Your task to perform on an android device: Add logitech g910 to the cart on walmart.com Image 0: 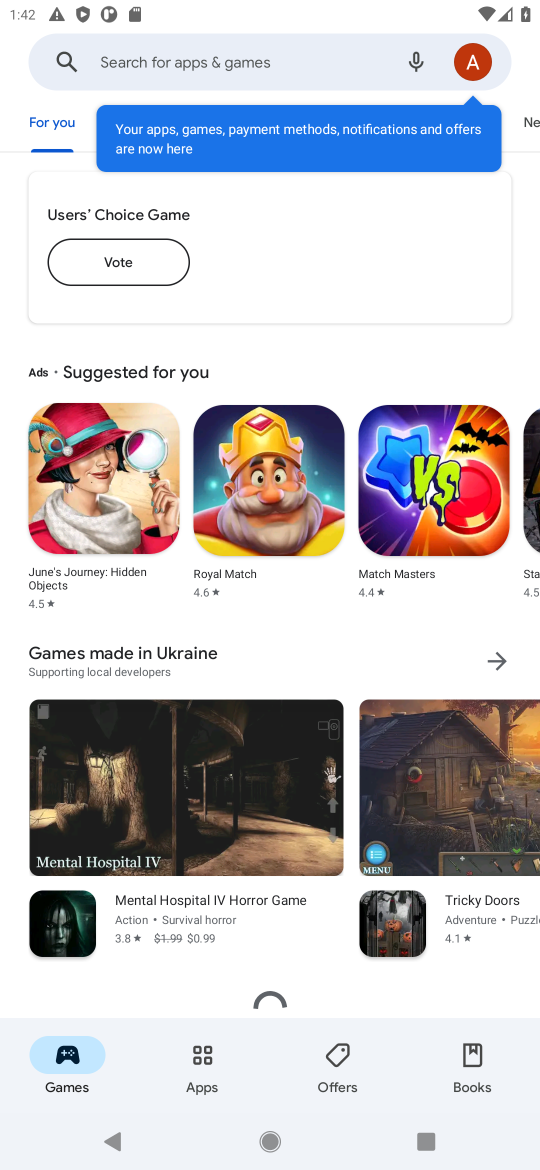
Step 0: press home button
Your task to perform on an android device: Add logitech g910 to the cart on walmart.com Image 1: 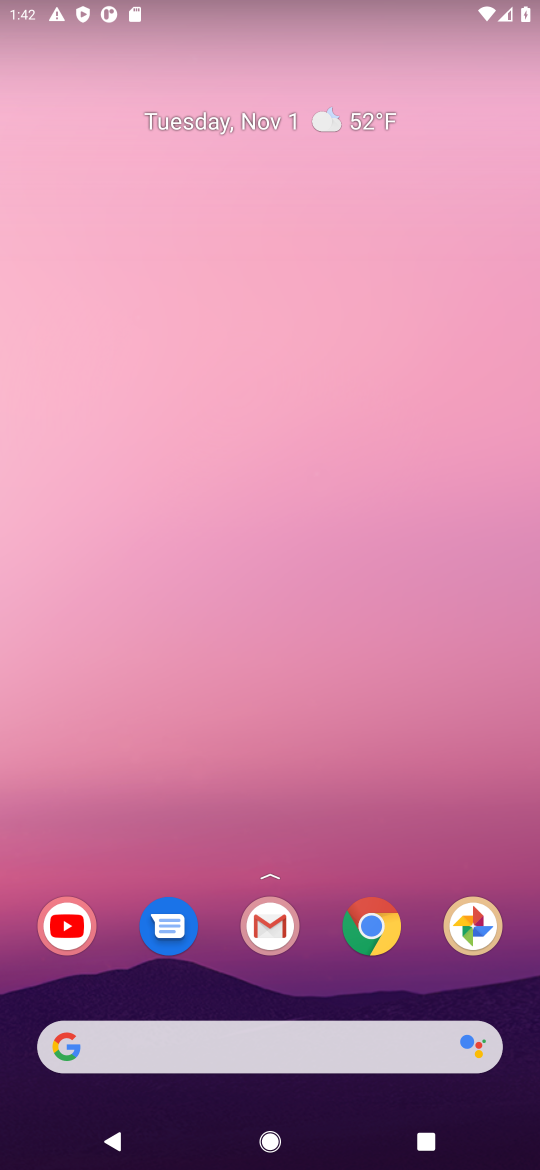
Step 1: click (378, 923)
Your task to perform on an android device: Add logitech g910 to the cart on walmart.com Image 2: 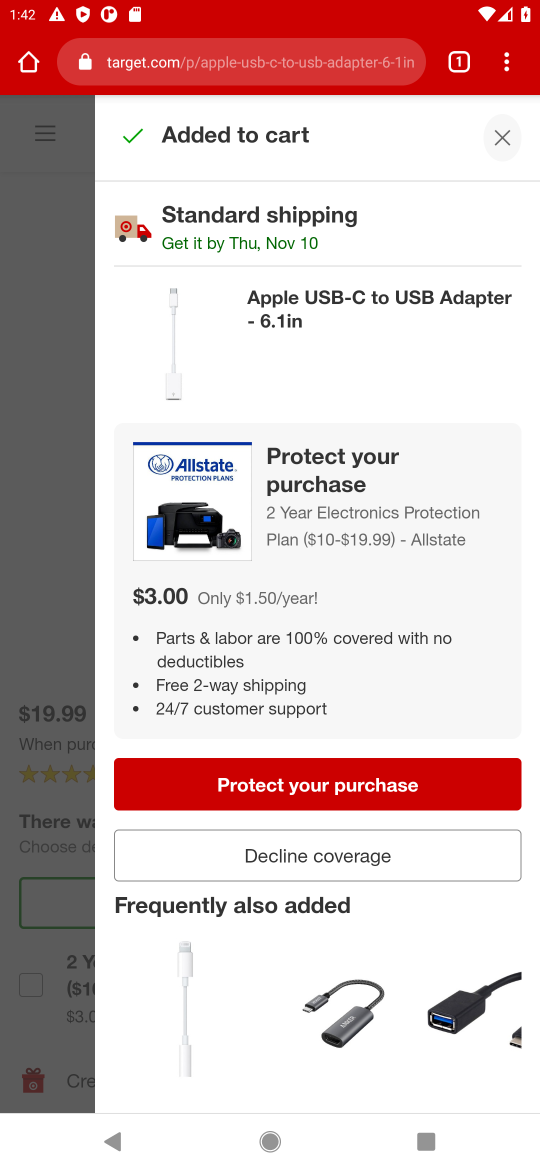
Step 2: click (261, 69)
Your task to perform on an android device: Add logitech g910 to the cart on walmart.com Image 3: 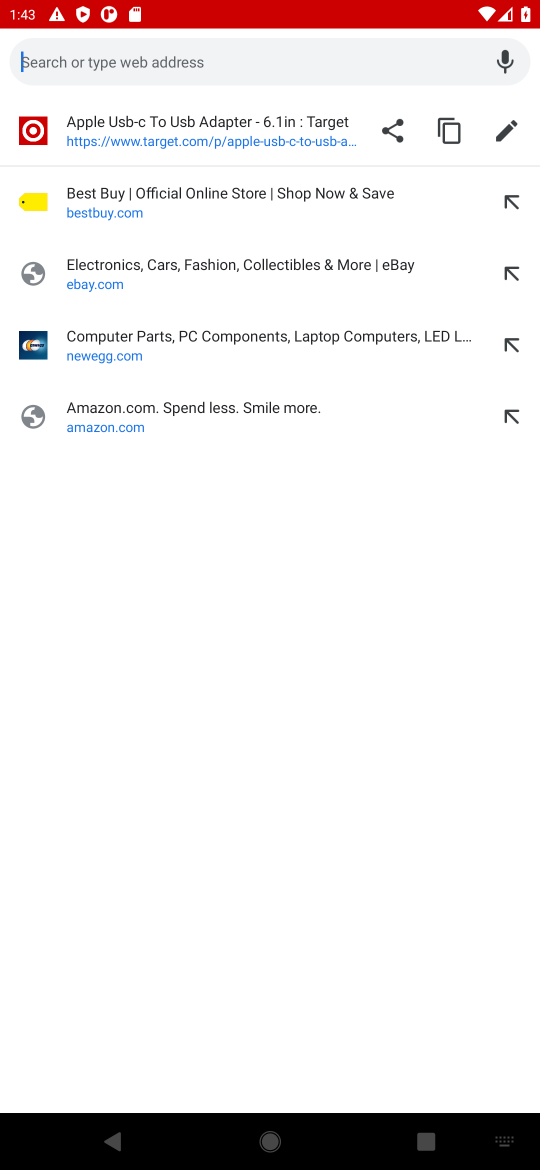
Step 3: type "walmart.com"
Your task to perform on an android device: Add logitech g910 to the cart on walmart.com Image 4: 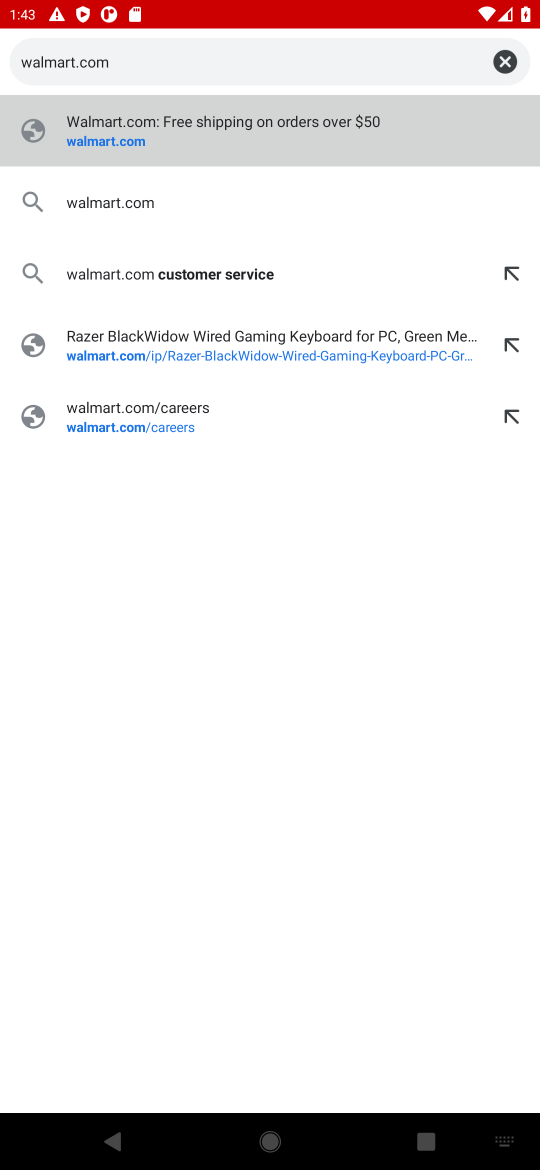
Step 4: press enter
Your task to perform on an android device: Add logitech g910 to the cart on walmart.com Image 5: 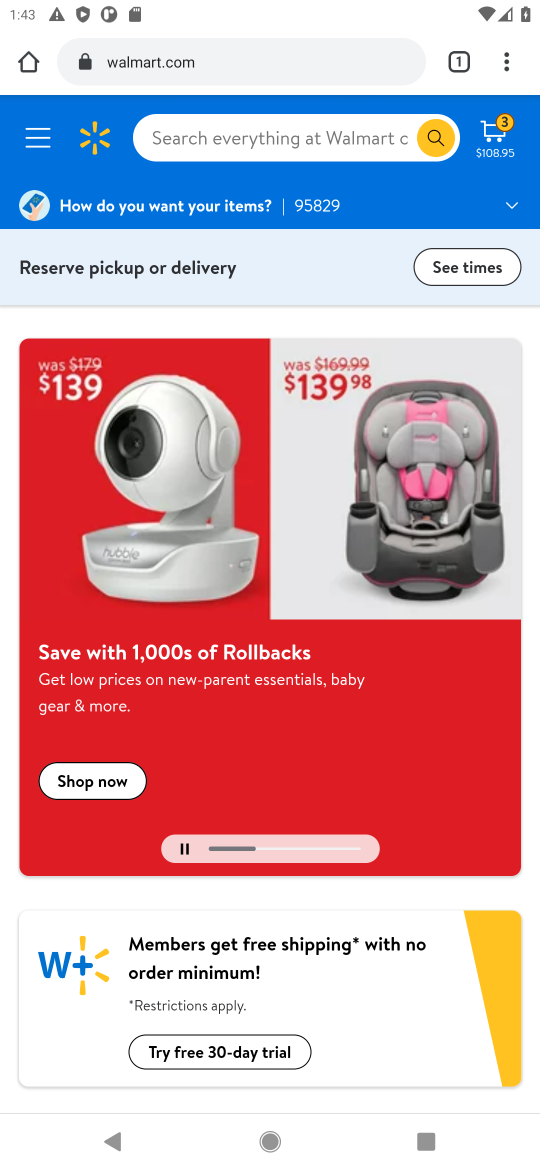
Step 5: click (313, 141)
Your task to perform on an android device: Add logitech g910 to the cart on walmart.com Image 6: 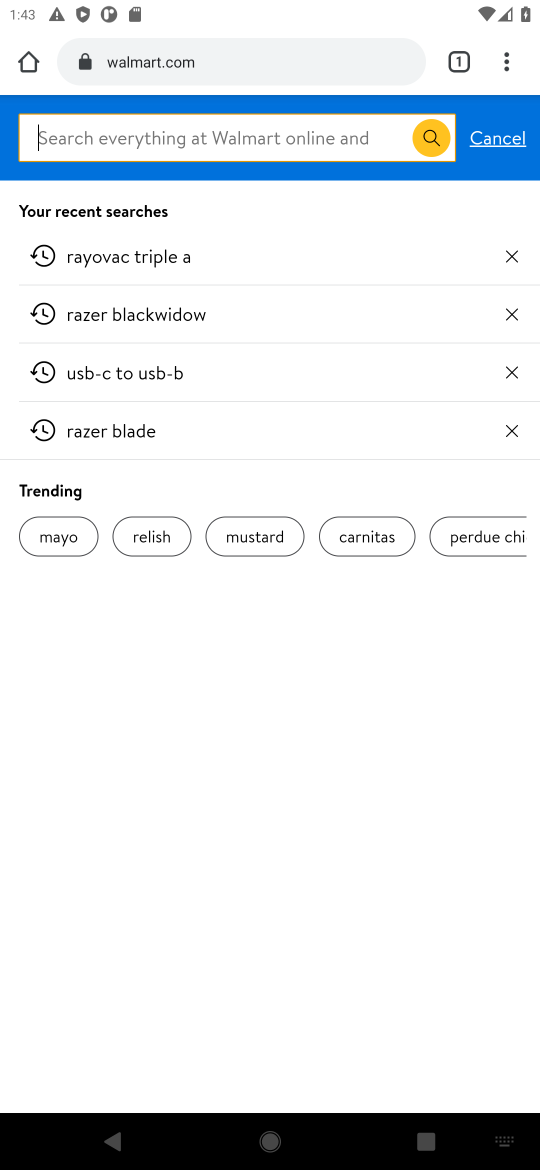
Step 6: type "logitech g910"
Your task to perform on an android device: Add logitech g910 to the cart on walmart.com Image 7: 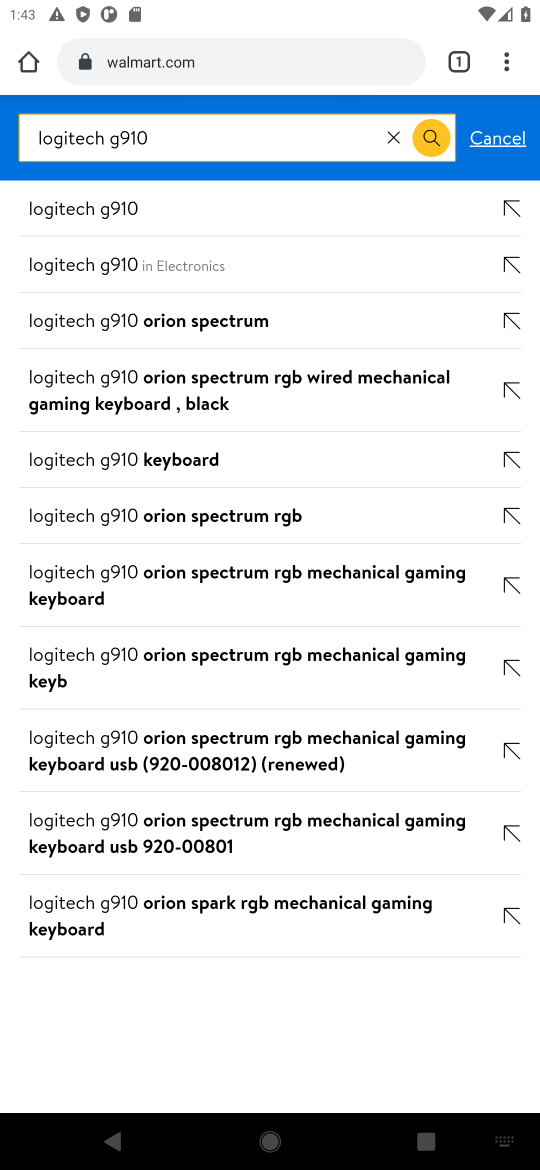
Step 7: click (133, 212)
Your task to perform on an android device: Add logitech g910 to the cart on walmart.com Image 8: 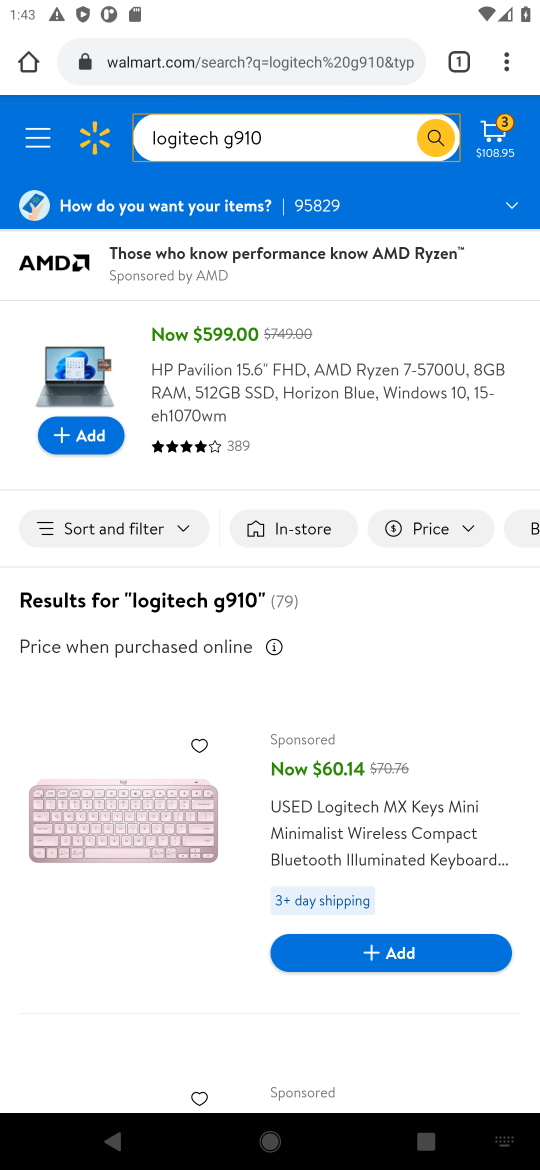
Step 8: drag from (286, 686) to (210, 99)
Your task to perform on an android device: Add logitech g910 to the cart on walmart.com Image 9: 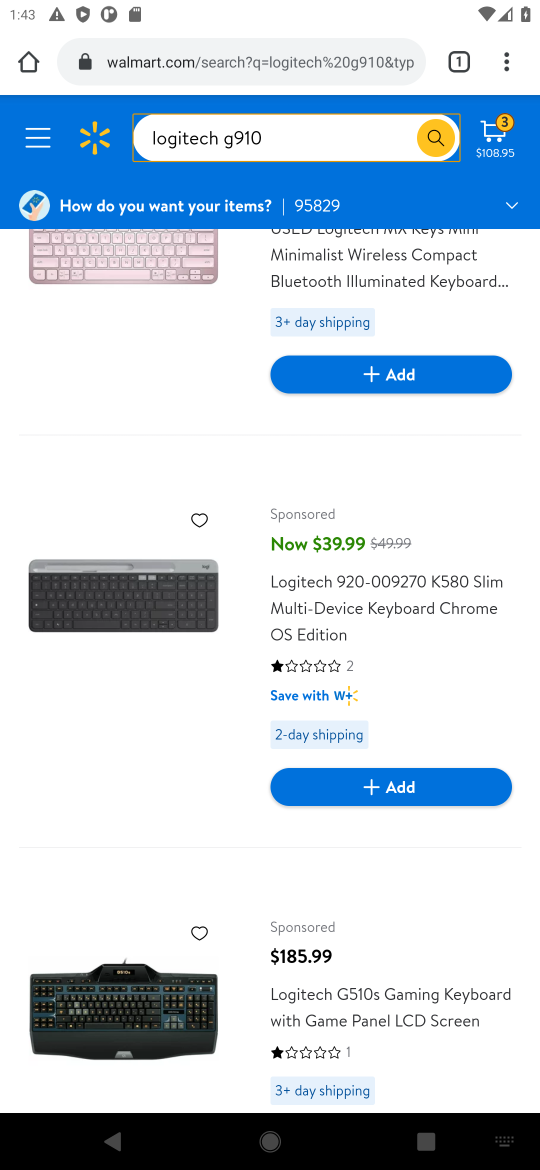
Step 9: drag from (236, 829) to (140, 50)
Your task to perform on an android device: Add logitech g910 to the cart on walmart.com Image 10: 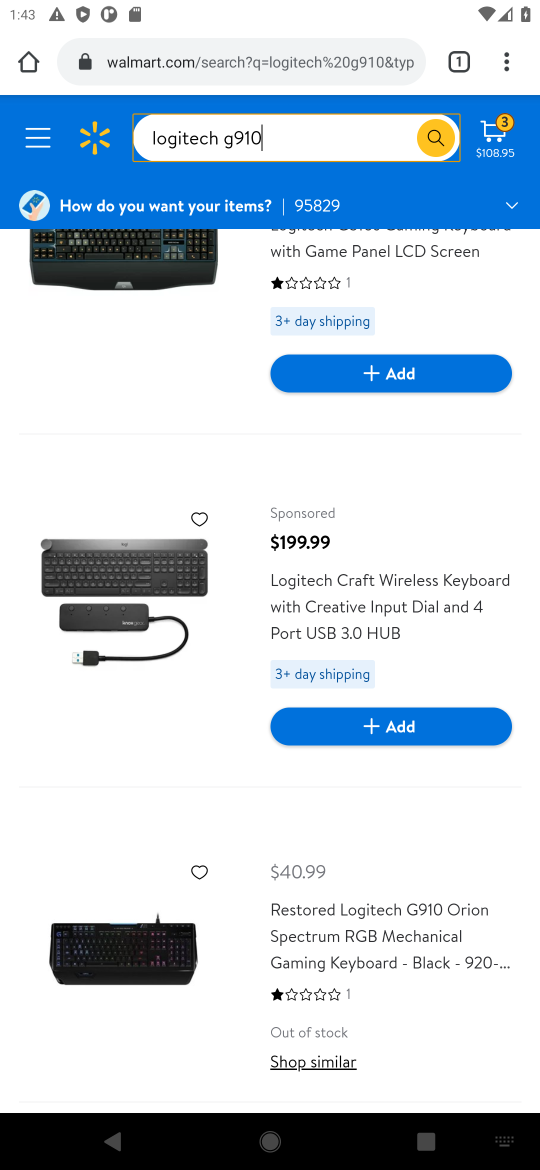
Step 10: click (133, 929)
Your task to perform on an android device: Add logitech g910 to the cart on walmart.com Image 11: 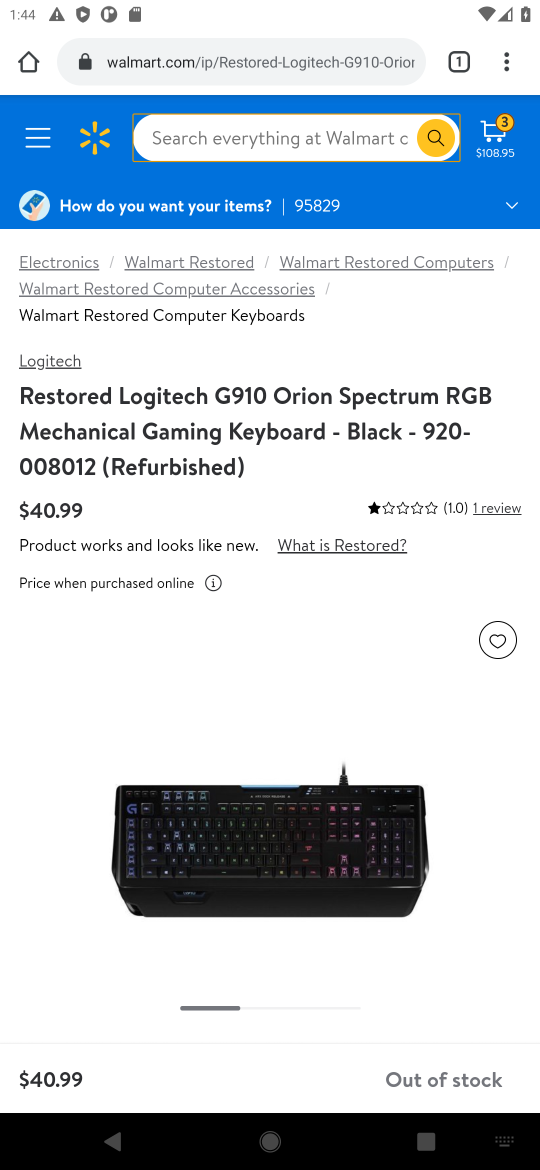
Step 11: drag from (500, 917) to (417, 635)
Your task to perform on an android device: Add logitech g910 to the cart on walmart.com Image 12: 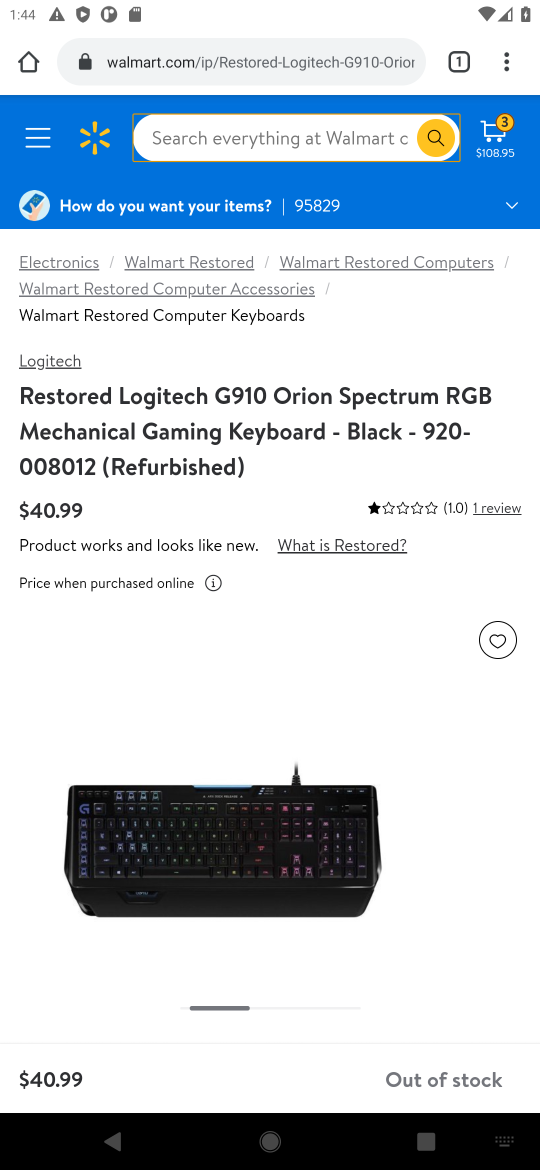
Step 12: press back button
Your task to perform on an android device: Add logitech g910 to the cart on walmart.com Image 13: 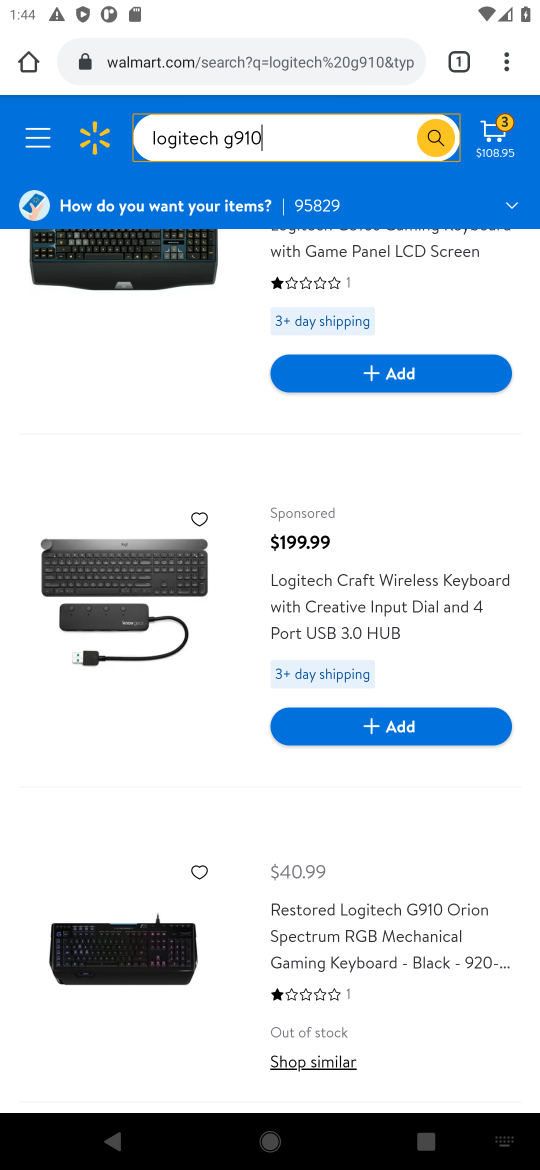
Step 13: drag from (452, 851) to (359, 473)
Your task to perform on an android device: Add logitech g910 to the cart on walmart.com Image 14: 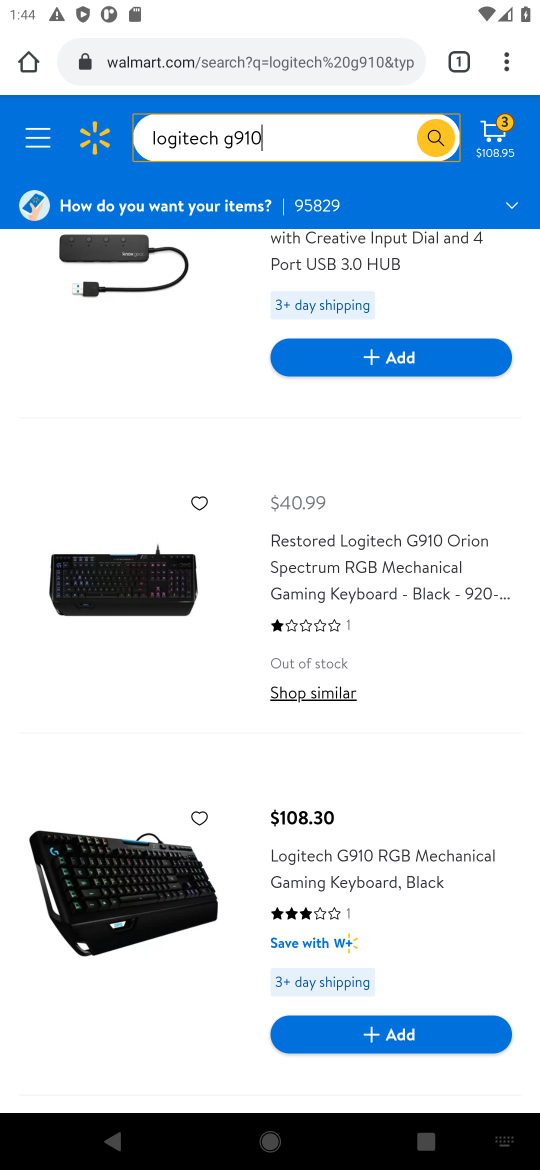
Step 14: click (373, 1042)
Your task to perform on an android device: Add logitech g910 to the cart on walmart.com Image 15: 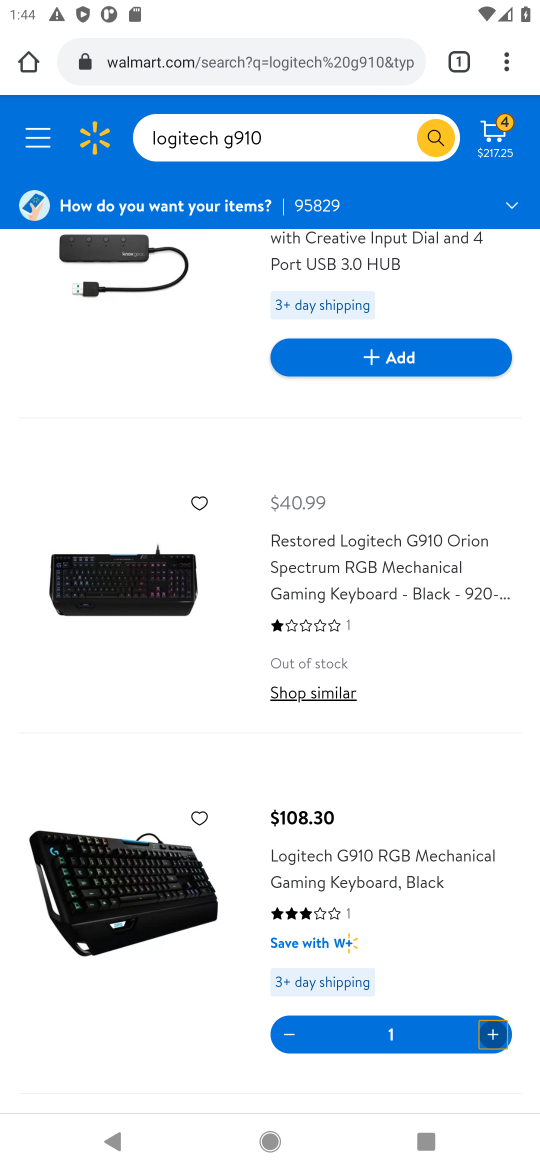
Step 15: task complete